Your task to perform on an android device: turn on wifi Image 0: 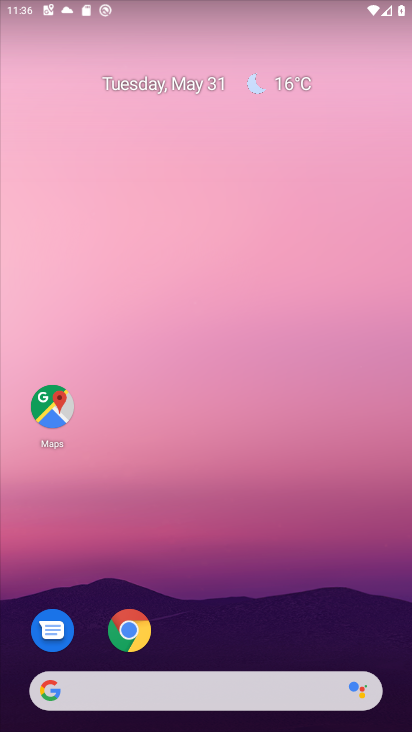
Step 0: drag from (285, 587) to (280, 96)
Your task to perform on an android device: turn on wifi Image 1: 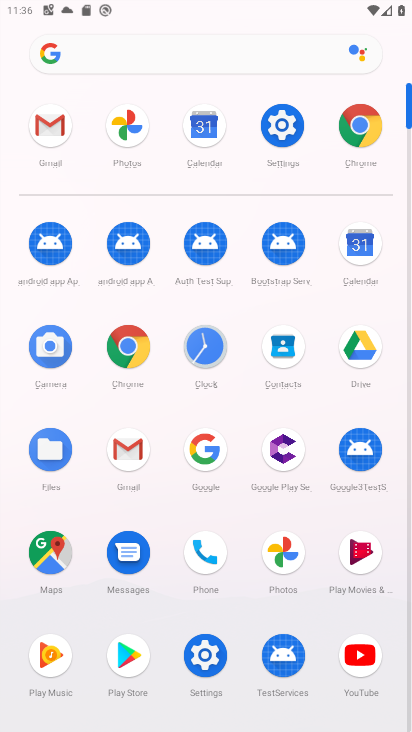
Step 1: click (270, 125)
Your task to perform on an android device: turn on wifi Image 2: 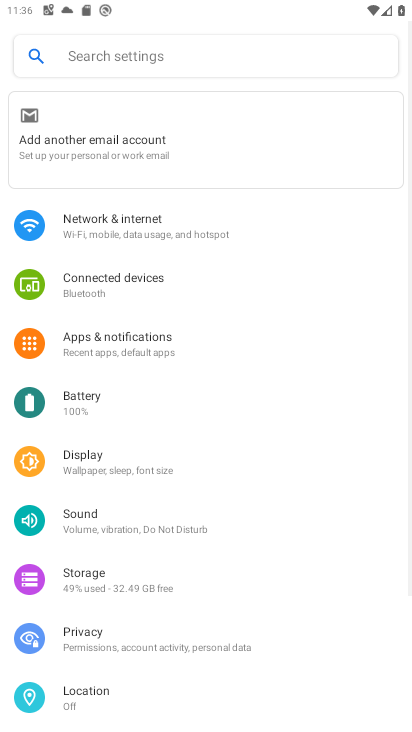
Step 2: click (142, 221)
Your task to perform on an android device: turn on wifi Image 3: 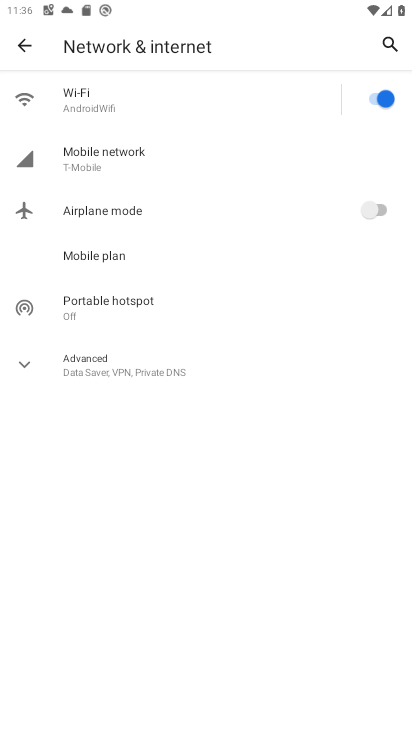
Step 3: click (218, 94)
Your task to perform on an android device: turn on wifi Image 4: 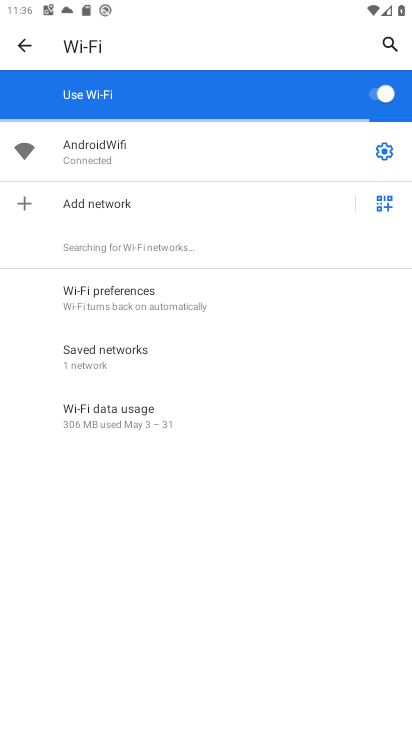
Step 4: task complete